Your task to perform on an android device: Search for "macbook pro 13 inch" on ebay, select the first entry, add it to the cart, then select checkout. Image 0: 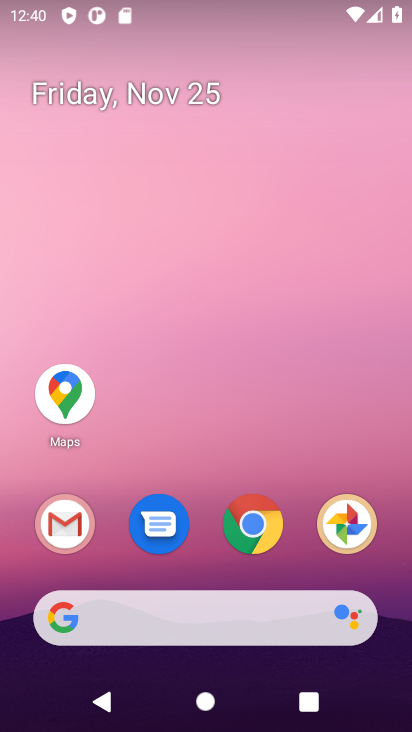
Step 0: click (256, 529)
Your task to perform on an android device: Search for "macbook pro 13 inch" on ebay, select the first entry, add it to the cart, then select checkout. Image 1: 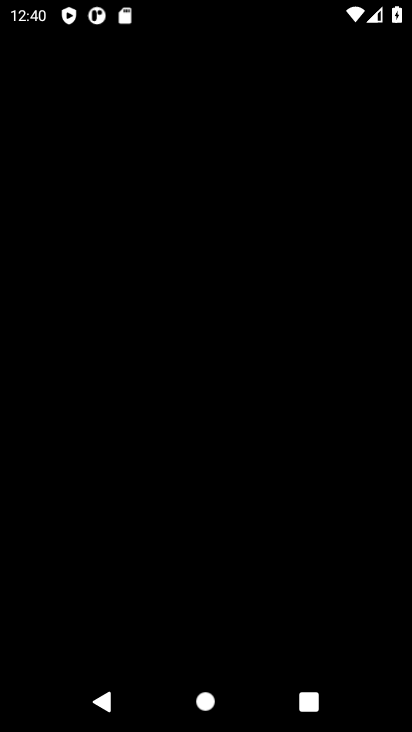
Step 1: press home button
Your task to perform on an android device: Search for "macbook pro 13 inch" on ebay, select the first entry, add it to the cart, then select checkout. Image 2: 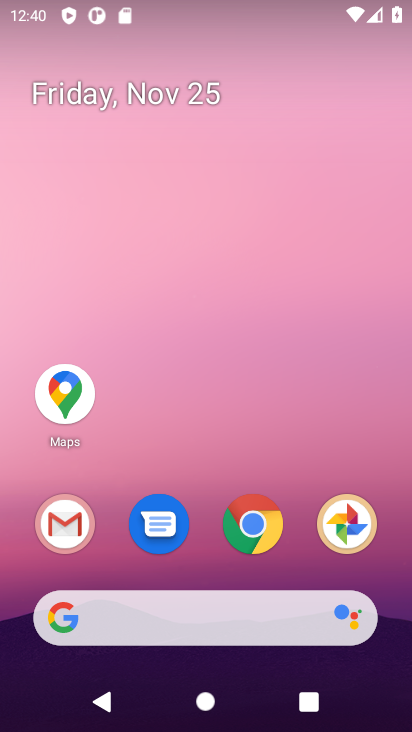
Step 2: click (254, 525)
Your task to perform on an android device: Search for "macbook pro 13 inch" on ebay, select the first entry, add it to the cart, then select checkout. Image 3: 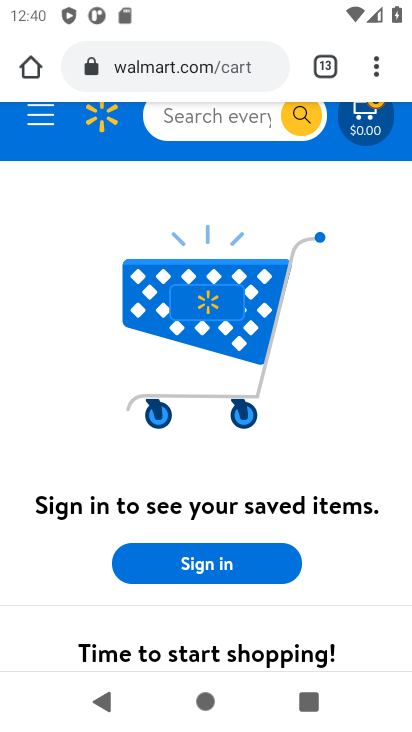
Step 3: click (190, 65)
Your task to perform on an android device: Search for "macbook pro 13 inch" on ebay, select the first entry, add it to the cart, then select checkout. Image 4: 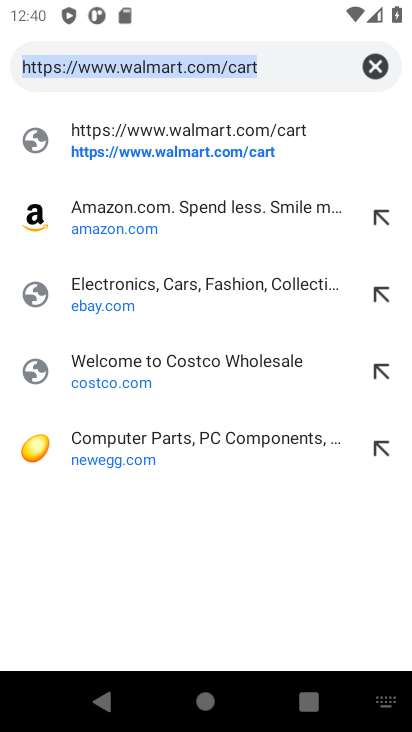
Step 4: click (94, 294)
Your task to perform on an android device: Search for "macbook pro 13 inch" on ebay, select the first entry, add it to the cart, then select checkout. Image 5: 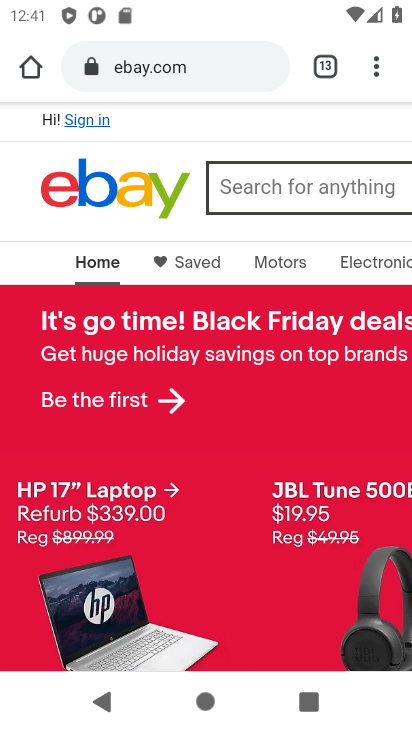
Step 5: click (315, 196)
Your task to perform on an android device: Search for "macbook pro 13 inch" on ebay, select the first entry, add it to the cart, then select checkout. Image 6: 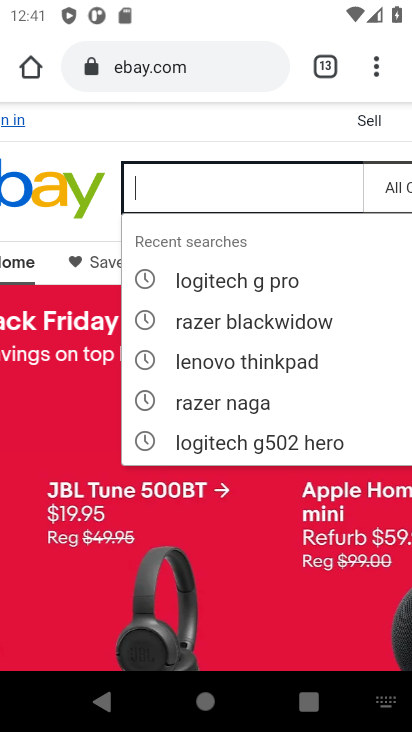
Step 6: type "macbook pro 13 inch"
Your task to perform on an android device: Search for "macbook pro 13 inch" on ebay, select the first entry, add it to the cart, then select checkout. Image 7: 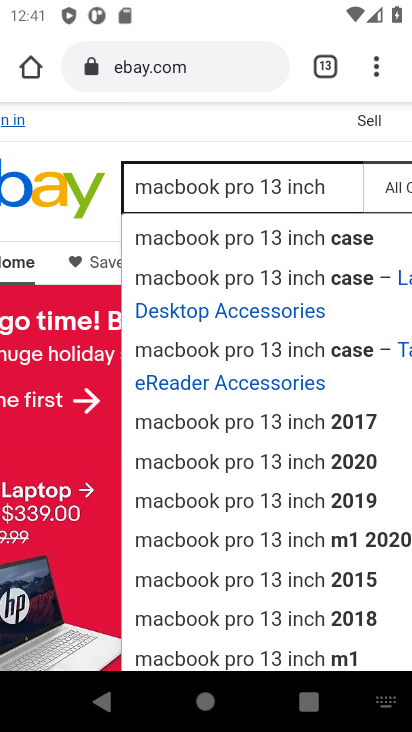
Step 7: drag from (358, 148) to (94, 122)
Your task to perform on an android device: Search for "macbook pro 13 inch" on ebay, select the first entry, add it to the cart, then select checkout. Image 8: 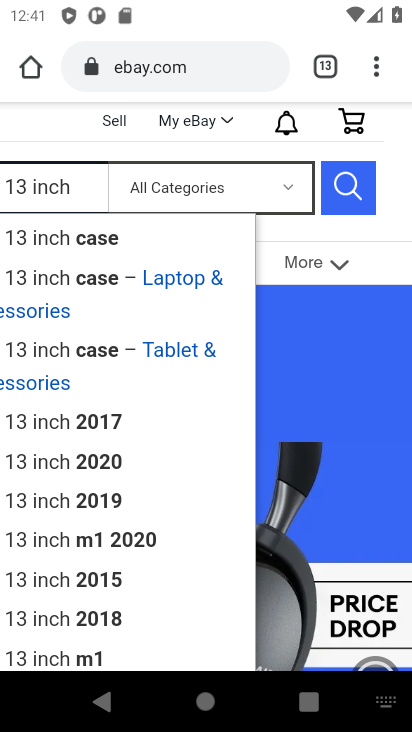
Step 8: click (348, 187)
Your task to perform on an android device: Search for "macbook pro 13 inch" on ebay, select the first entry, add it to the cart, then select checkout. Image 9: 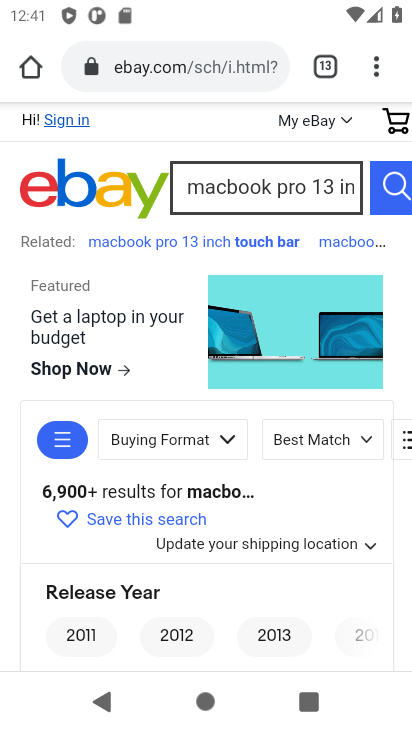
Step 9: drag from (209, 497) to (236, 235)
Your task to perform on an android device: Search for "macbook pro 13 inch" on ebay, select the first entry, add it to the cart, then select checkout. Image 10: 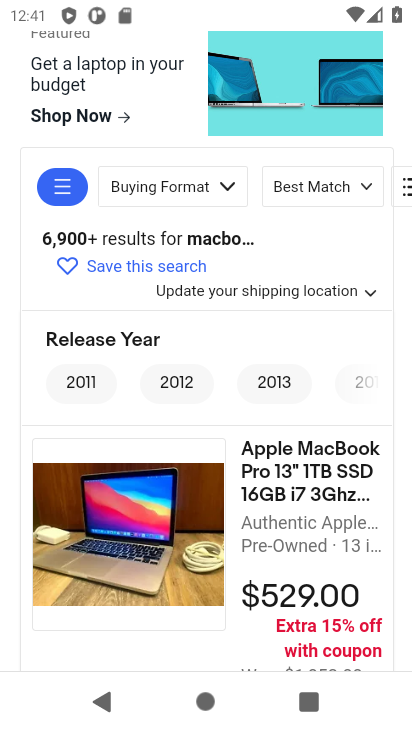
Step 10: drag from (203, 401) to (206, 248)
Your task to perform on an android device: Search for "macbook pro 13 inch" on ebay, select the first entry, add it to the cart, then select checkout. Image 11: 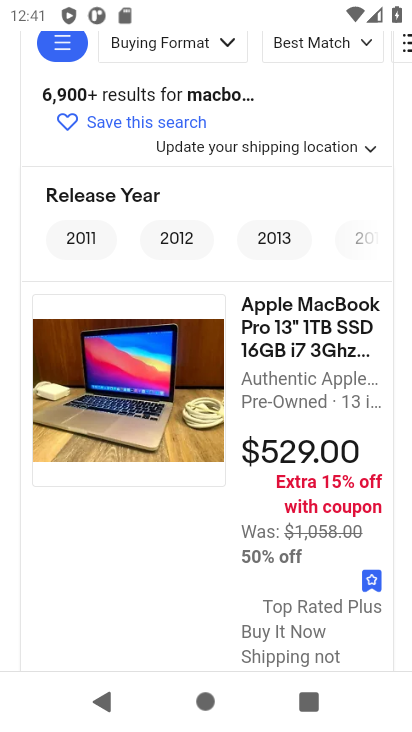
Step 11: drag from (133, 502) to (138, 278)
Your task to perform on an android device: Search for "macbook pro 13 inch" on ebay, select the first entry, add it to the cart, then select checkout. Image 12: 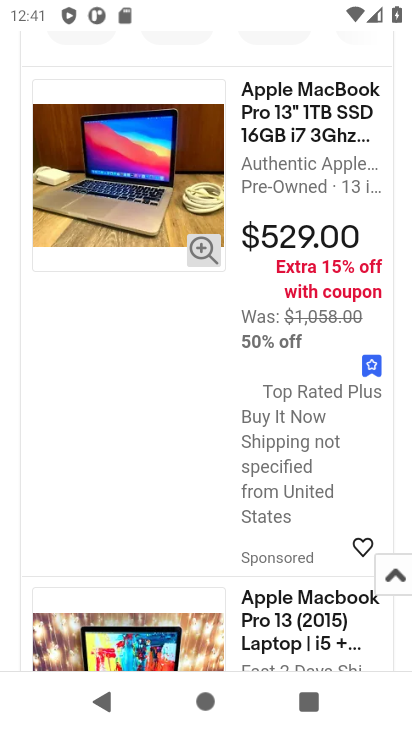
Step 12: click (145, 264)
Your task to perform on an android device: Search for "macbook pro 13 inch" on ebay, select the first entry, add it to the cart, then select checkout. Image 13: 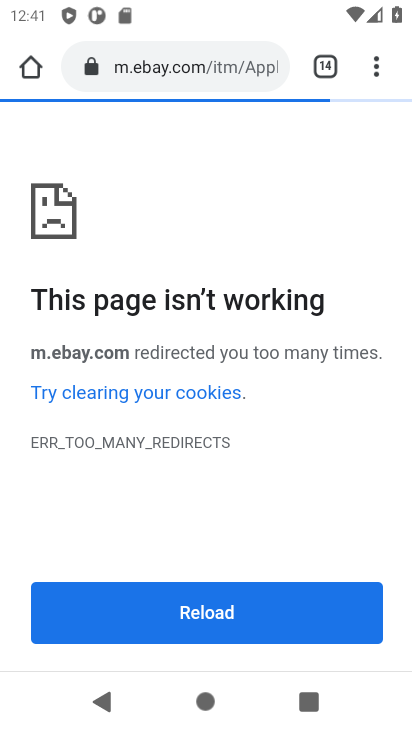
Step 13: task complete